Your task to perform on an android device: turn smart compose on in the gmail app Image 0: 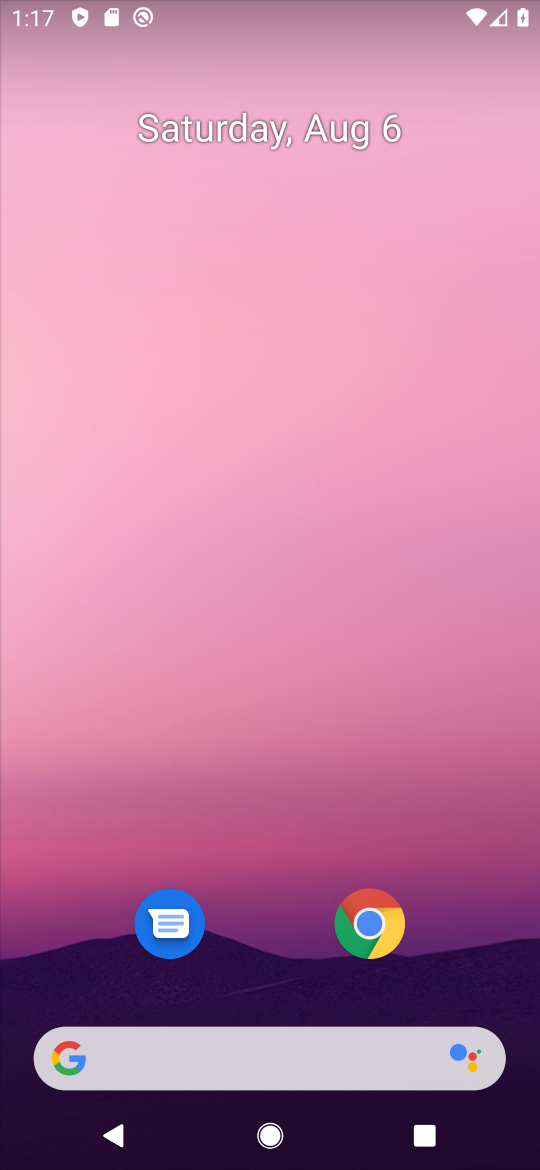
Step 0: drag from (263, 935) to (274, 469)
Your task to perform on an android device: turn smart compose on in the gmail app Image 1: 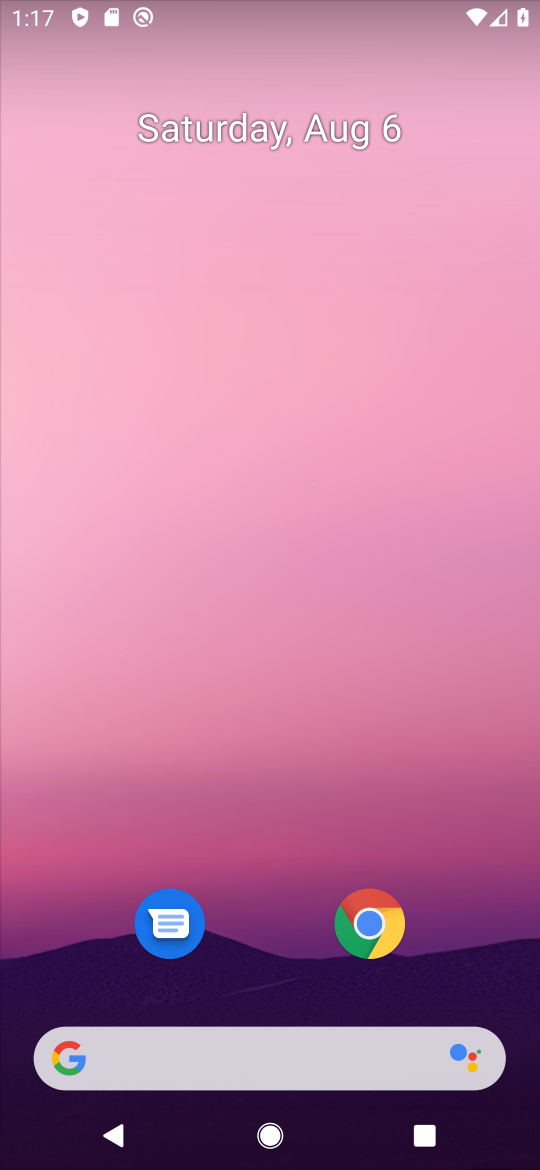
Step 1: drag from (282, 919) to (306, 291)
Your task to perform on an android device: turn smart compose on in the gmail app Image 2: 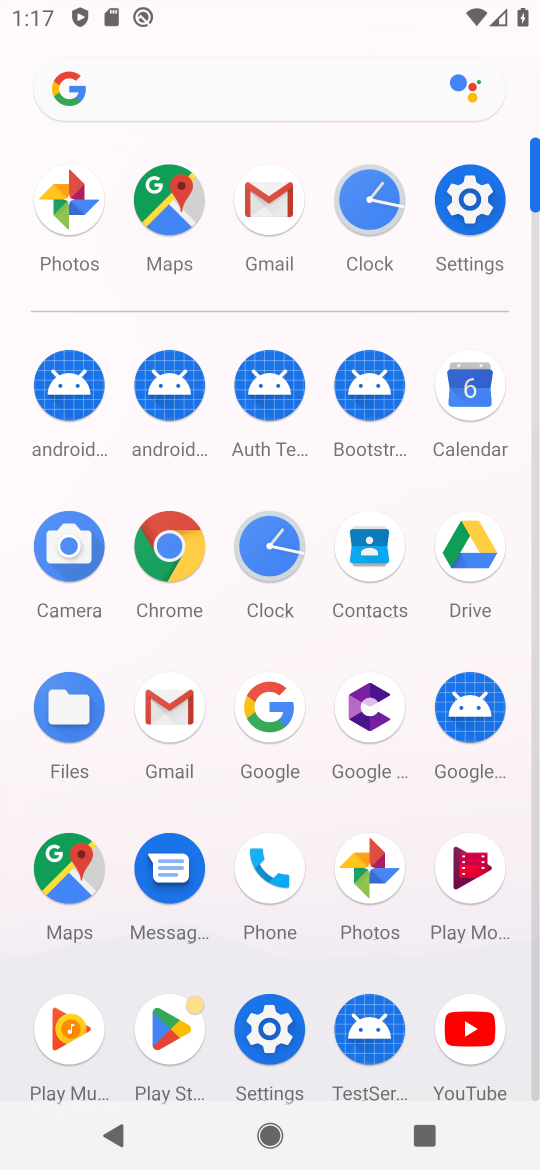
Step 2: click (181, 695)
Your task to perform on an android device: turn smart compose on in the gmail app Image 3: 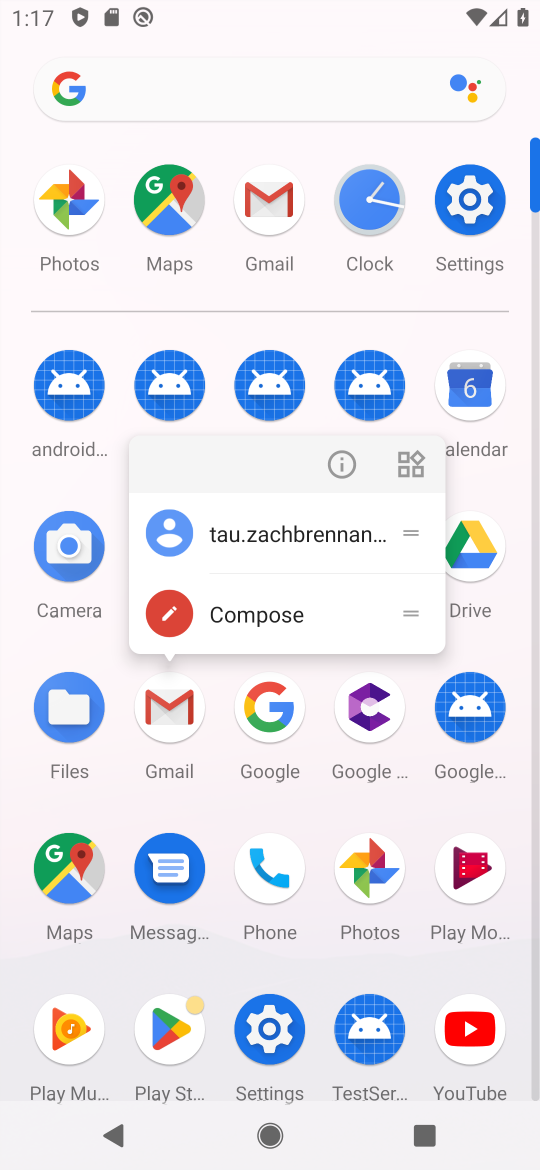
Step 3: click (332, 472)
Your task to perform on an android device: turn smart compose on in the gmail app Image 4: 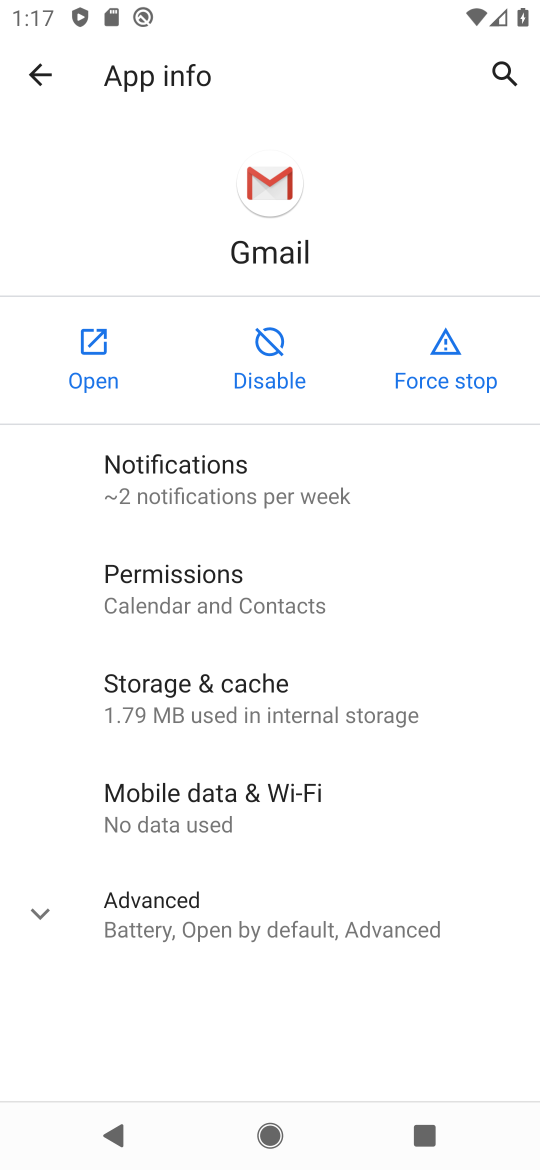
Step 4: click (104, 363)
Your task to perform on an android device: turn smart compose on in the gmail app Image 5: 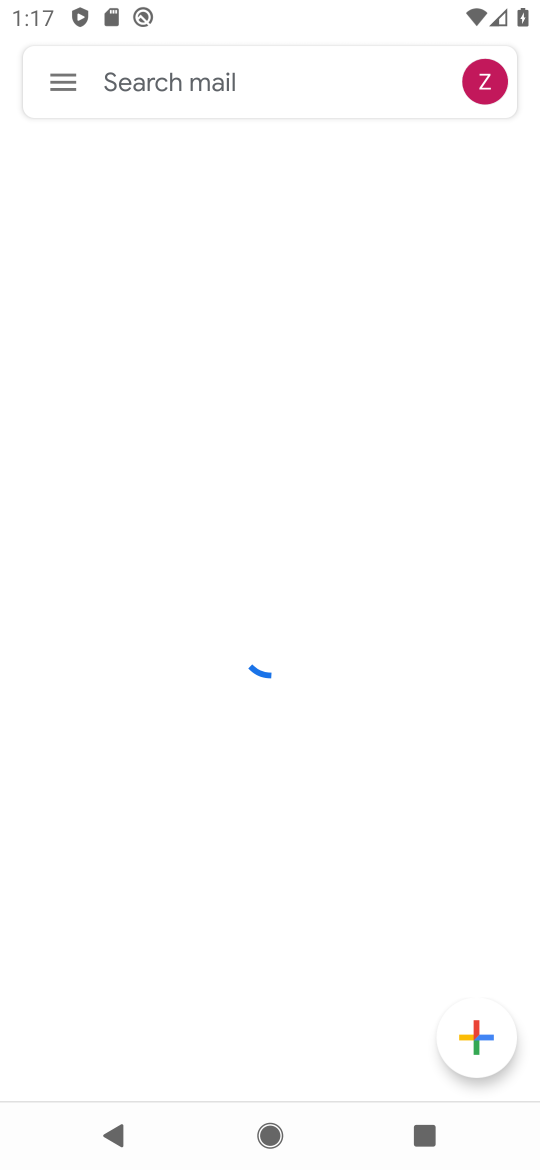
Step 5: click (61, 88)
Your task to perform on an android device: turn smart compose on in the gmail app Image 6: 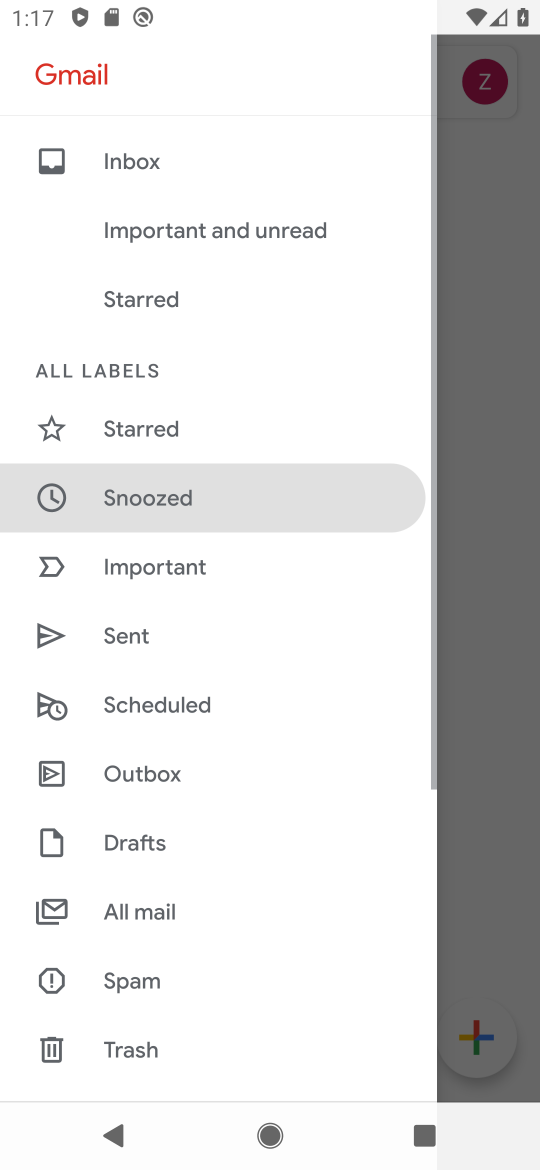
Step 6: drag from (185, 793) to (328, 152)
Your task to perform on an android device: turn smart compose on in the gmail app Image 7: 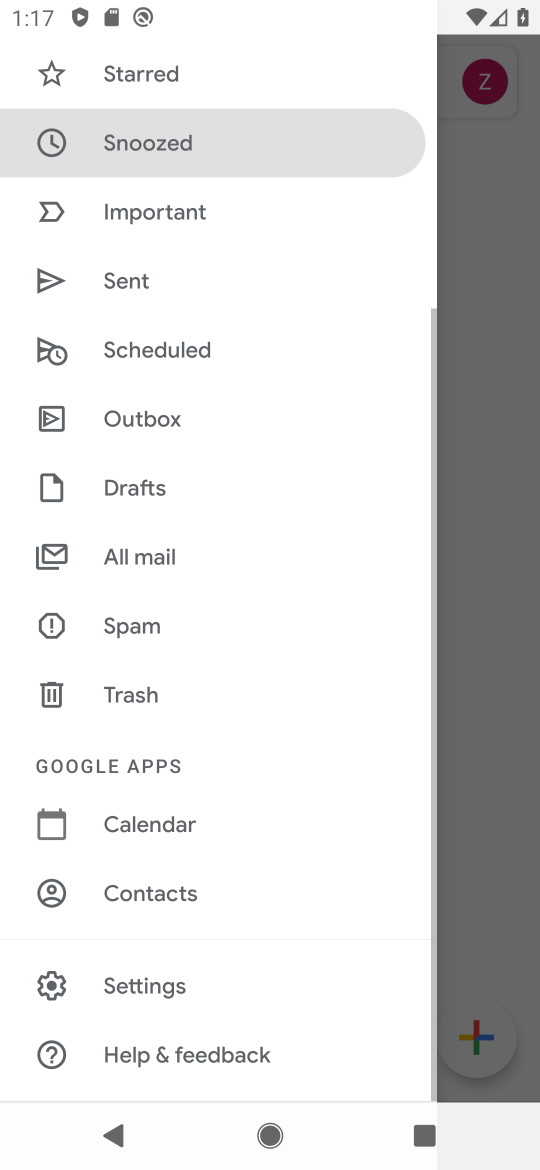
Step 7: drag from (240, 319) to (171, 766)
Your task to perform on an android device: turn smart compose on in the gmail app Image 8: 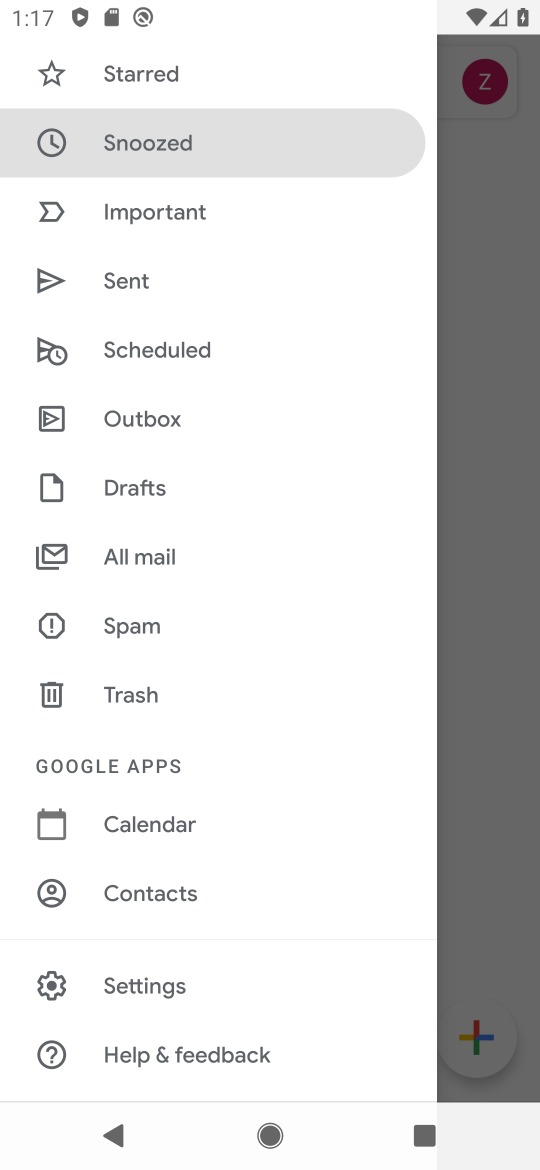
Step 8: drag from (214, 465) to (192, 851)
Your task to perform on an android device: turn smart compose on in the gmail app Image 9: 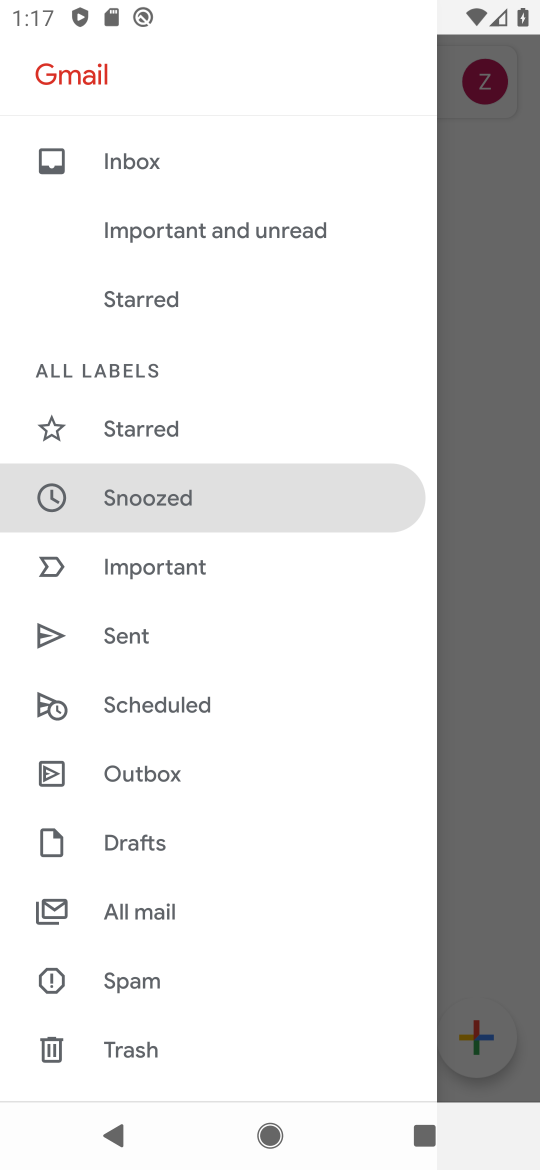
Step 9: click (133, 155)
Your task to perform on an android device: turn smart compose on in the gmail app Image 10: 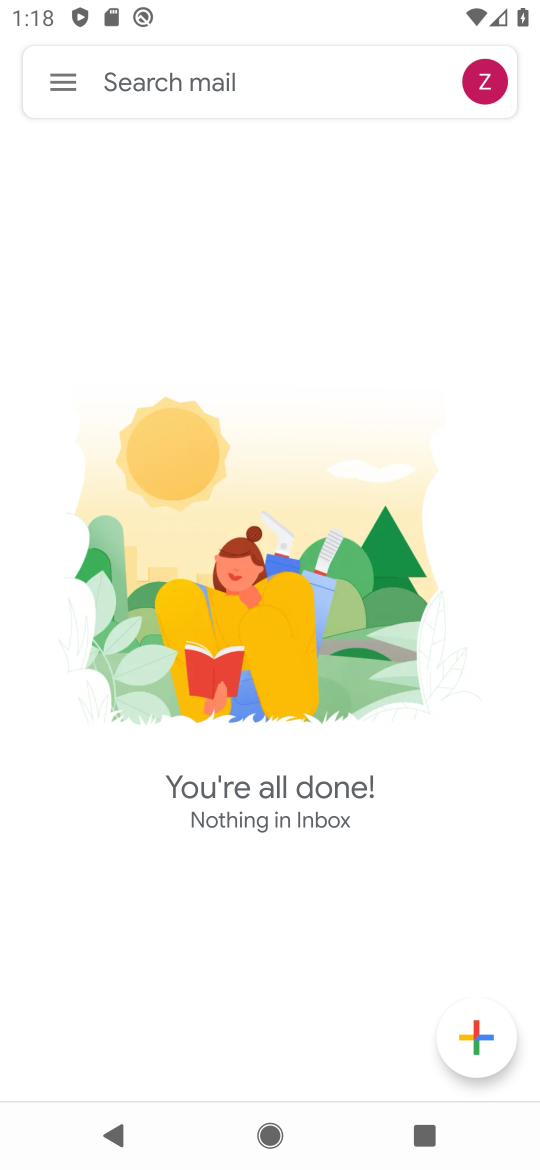
Step 10: click (61, 87)
Your task to perform on an android device: turn smart compose on in the gmail app Image 11: 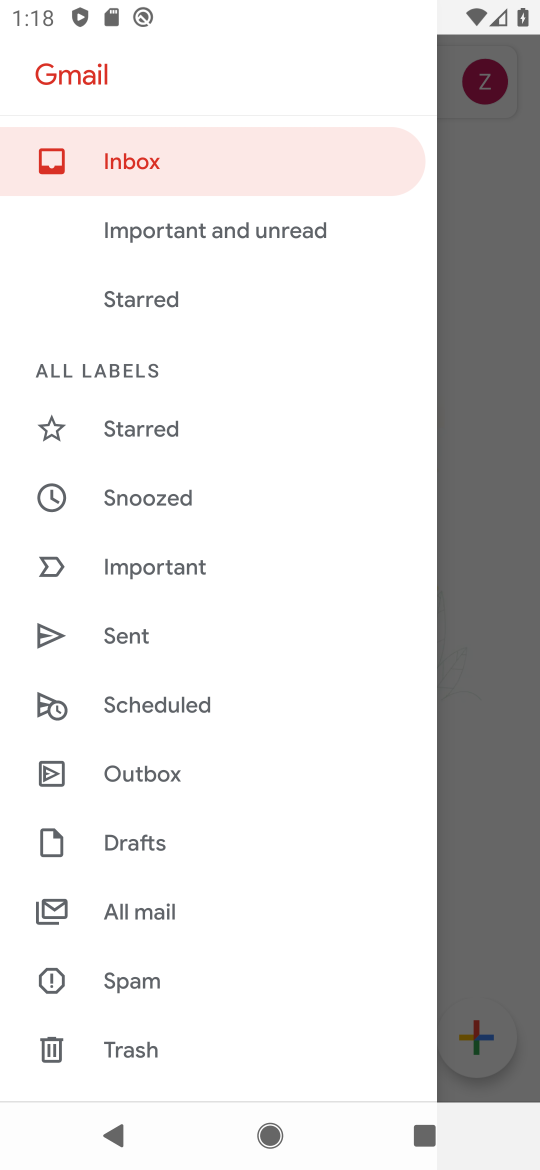
Step 11: click (347, 168)
Your task to perform on an android device: turn smart compose on in the gmail app Image 12: 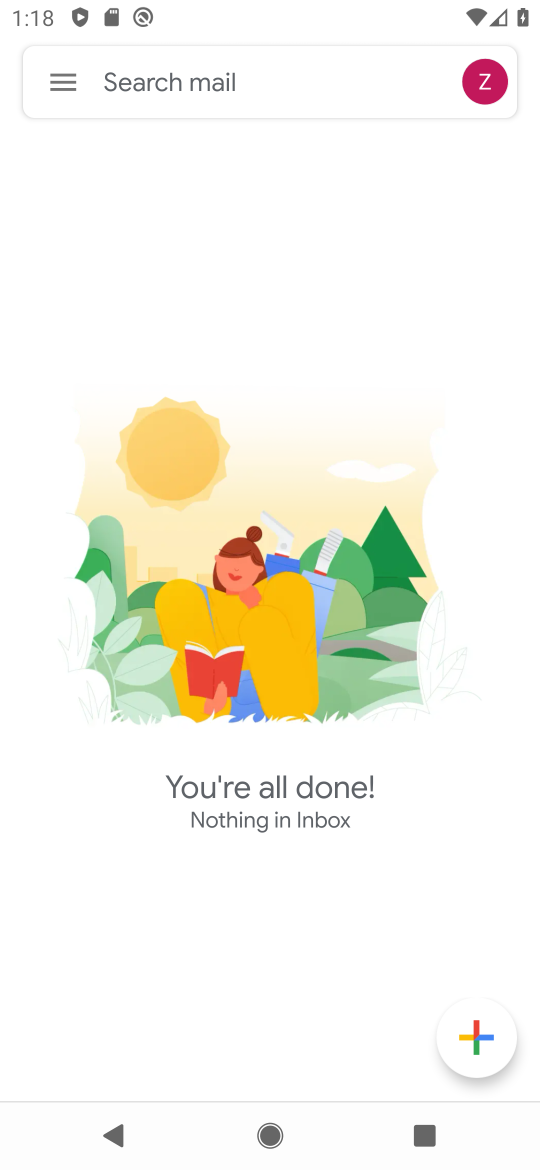
Step 12: click (253, 349)
Your task to perform on an android device: turn smart compose on in the gmail app Image 13: 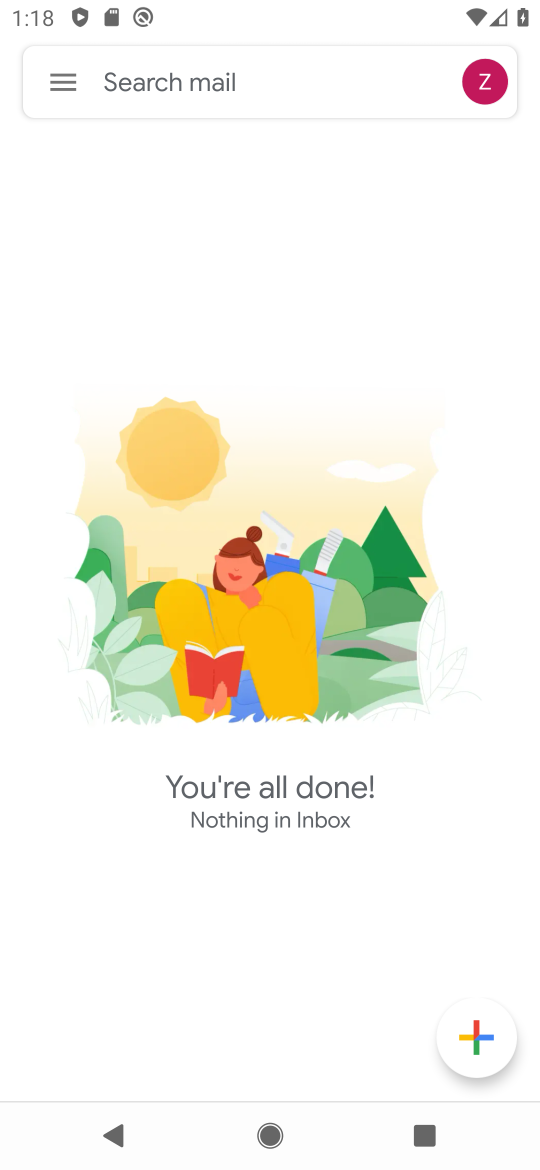
Step 13: click (66, 84)
Your task to perform on an android device: turn smart compose on in the gmail app Image 14: 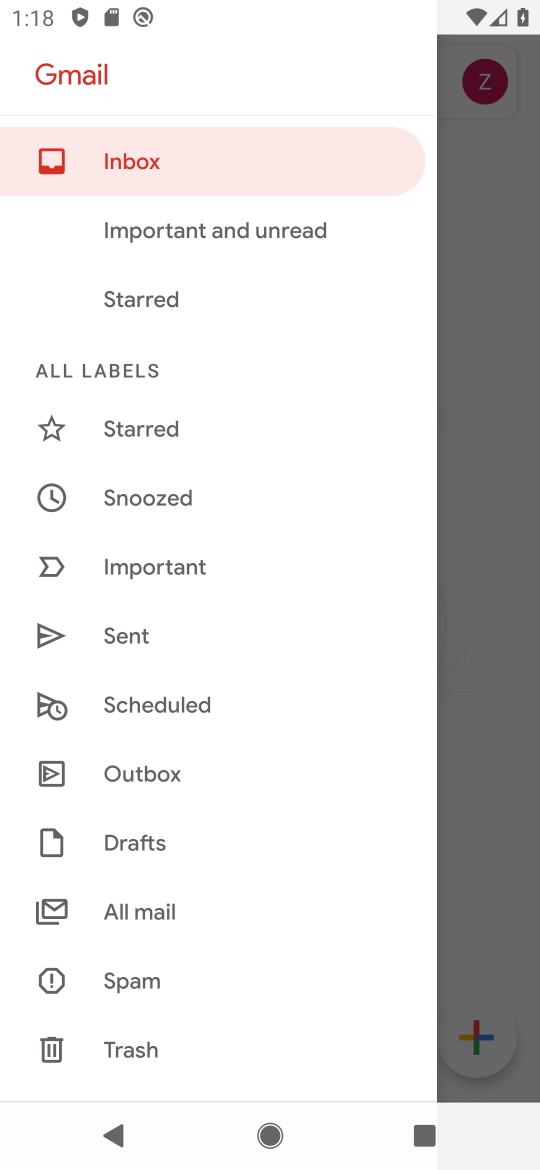
Step 14: drag from (135, 942) to (284, 478)
Your task to perform on an android device: turn smart compose on in the gmail app Image 15: 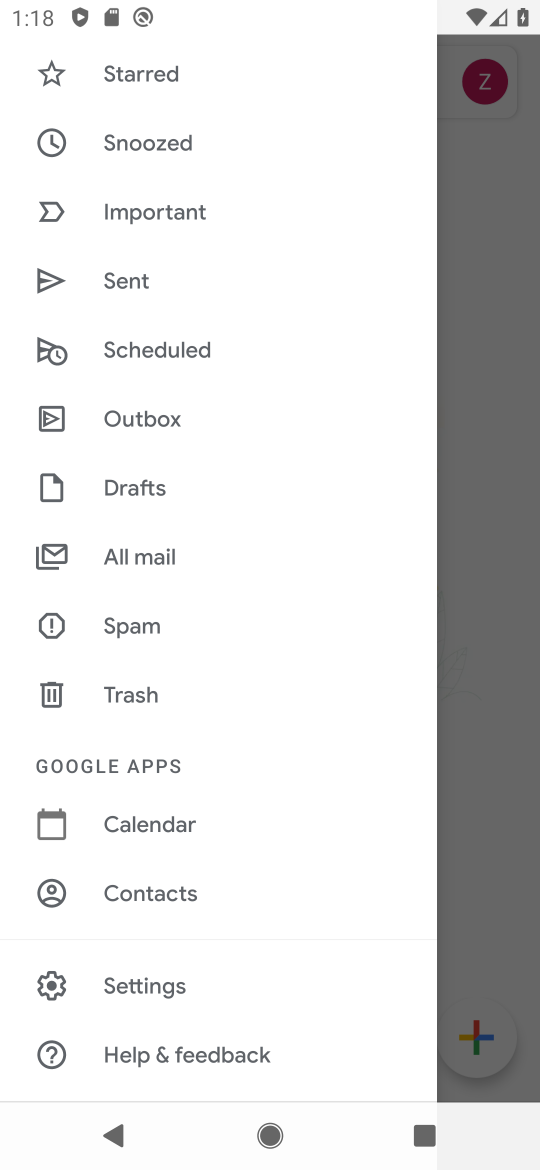
Step 15: click (178, 975)
Your task to perform on an android device: turn smart compose on in the gmail app Image 16: 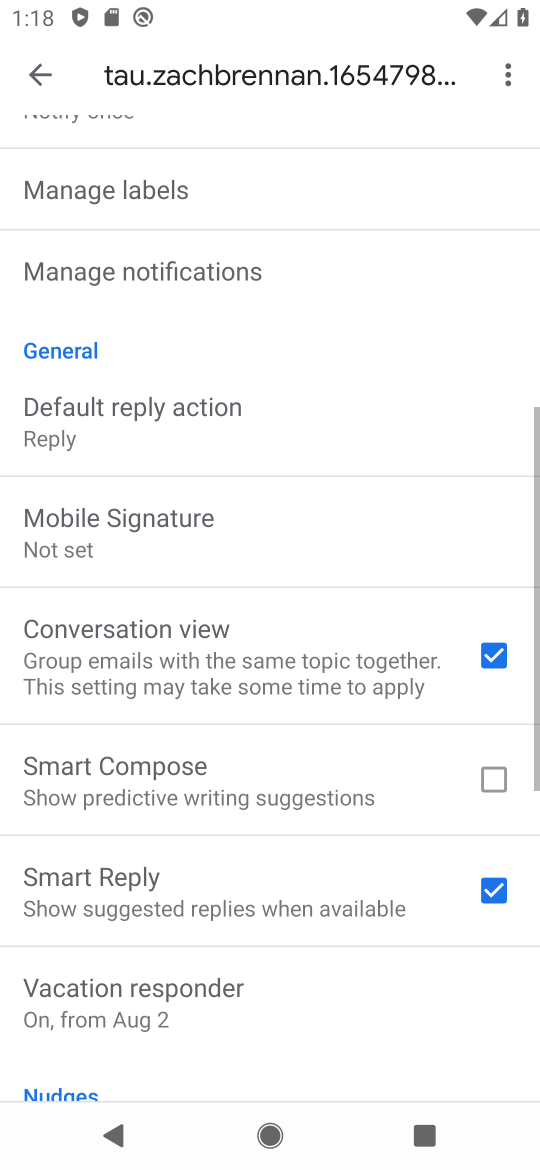
Step 16: drag from (255, 326) to (269, 805)
Your task to perform on an android device: turn smart compose on in the gmail app Image 17: 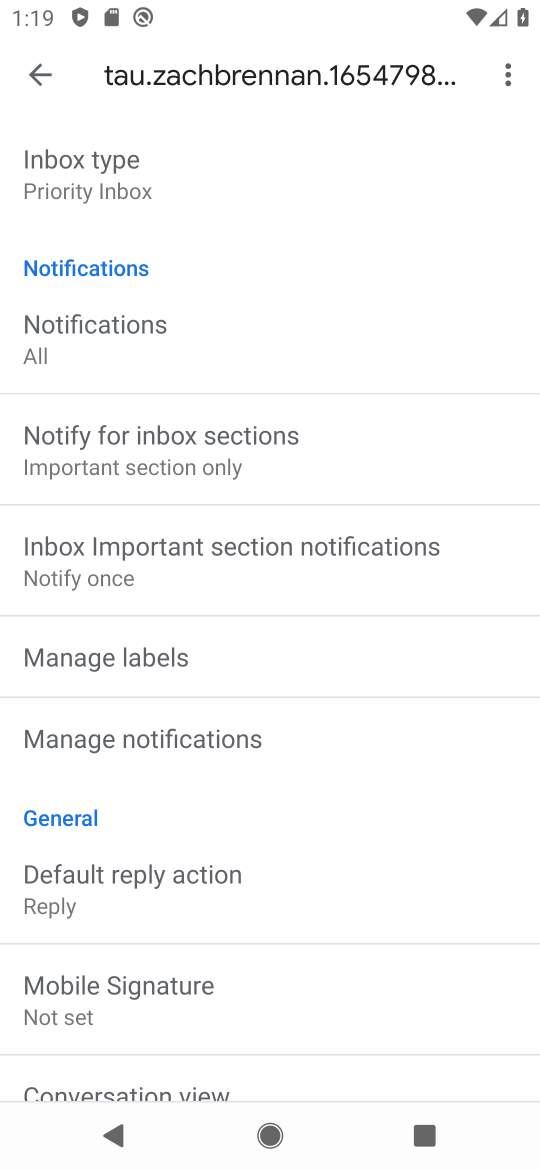
Step 17: drag from (294, 862) to (350, 278)
Your task to perform on an android device: turn smart compose on in the gmail app Image 18: 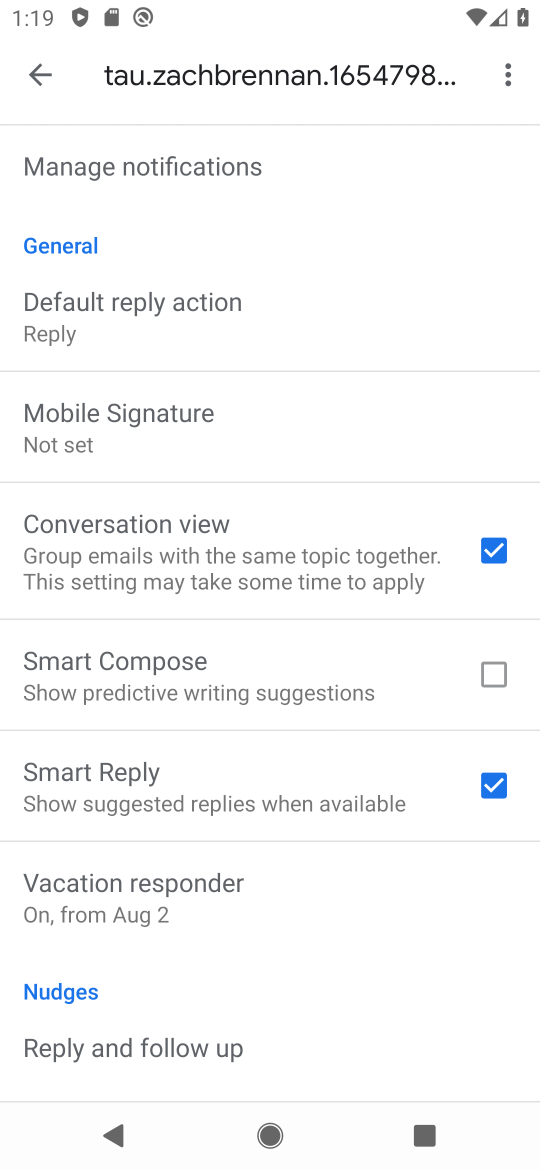
Step 18: click (482, 683)
Your task to perform on an android device: turn smart compose on in the gmail app Image 19: 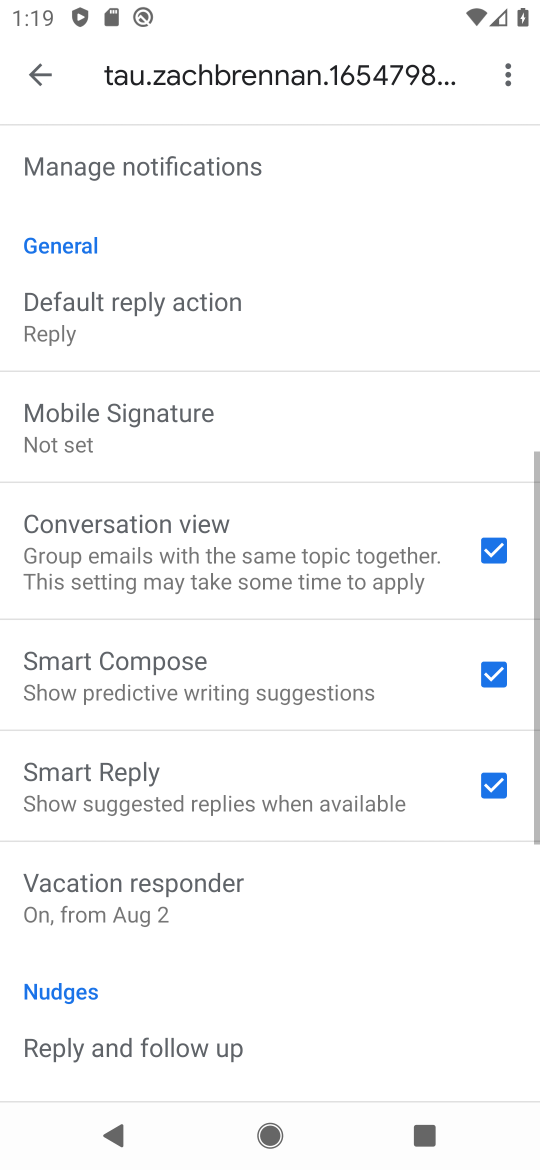
Step 19: task complete